Your task to perform on an android device: open device folders in google photos Image 0: 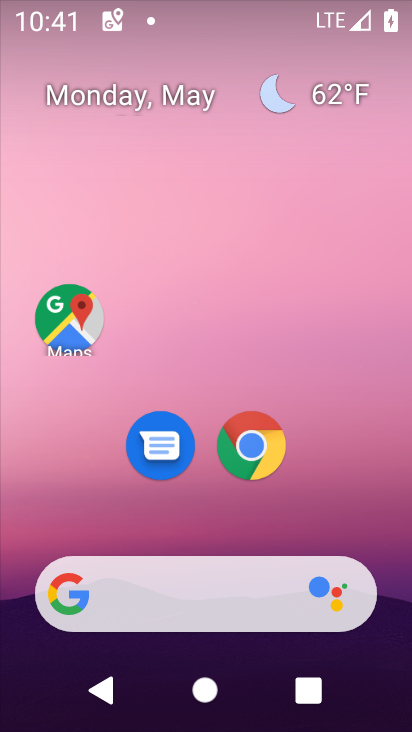
Step 0: click (407, 504)
Your task to perform on an android device: open device folders in google photos Image 1: 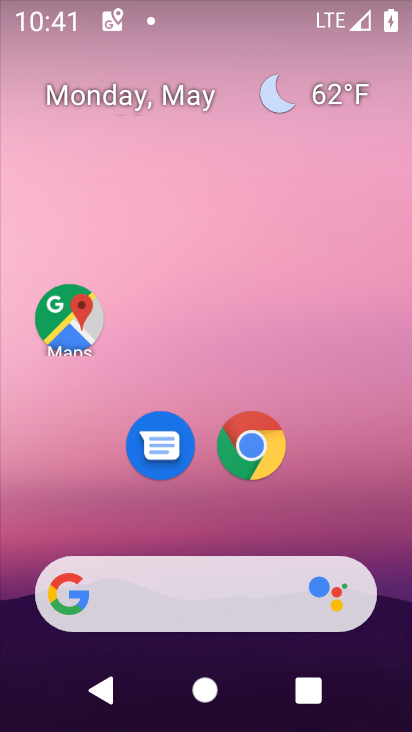
Step 1: drag from (384, 643) to (271, 89)
Your task to perform on an android device: open device folders in google photos Image 2: 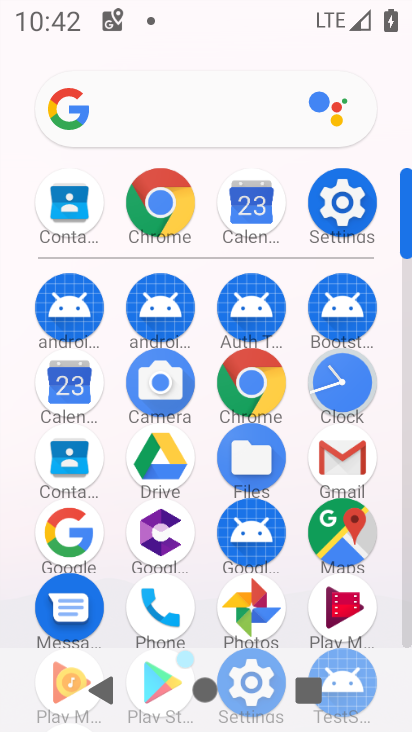
Step 2: click (267, 614)
Your task to perform on an android device: open device folders in google photos Image 3: 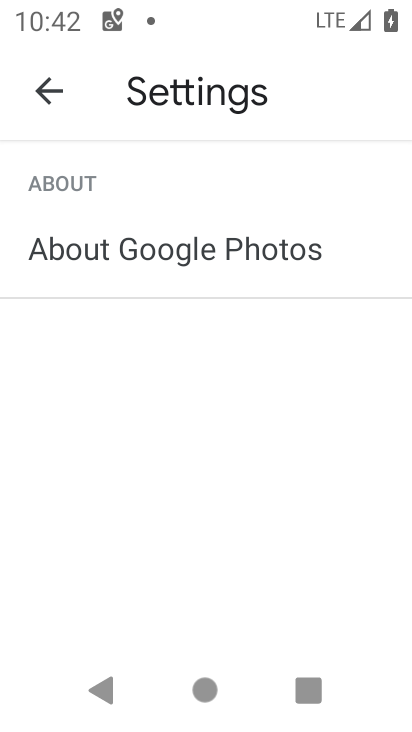
Step 3: task complete